Your task to perform on an android device: Open the stopwatch Image 0: 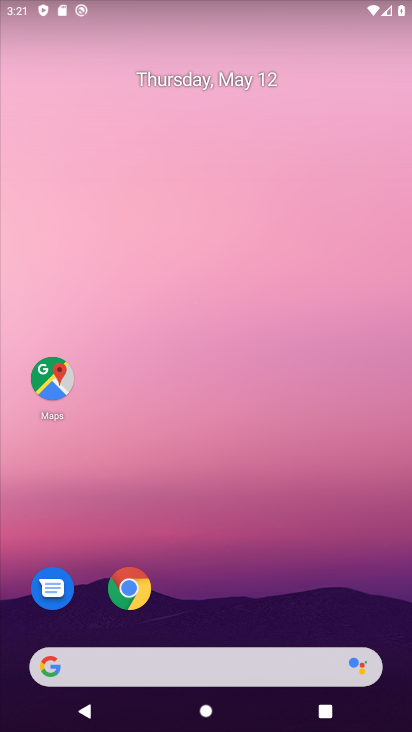
Step 0: drag from (327, 494) to (227, 89)
Your task to perform on an android device: Open the stopwatch Image 1: 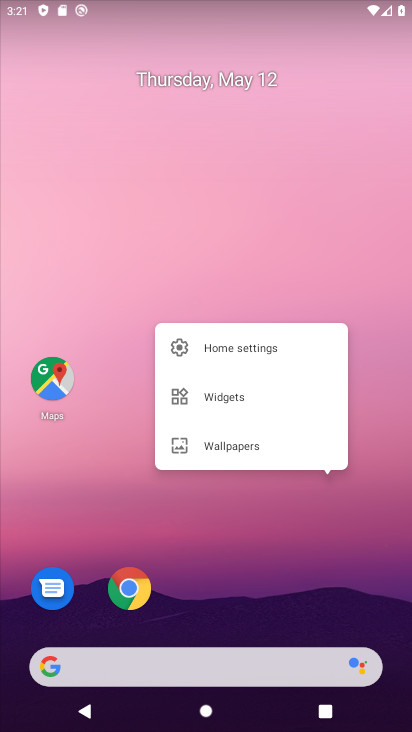
Step 1: click (233, 480)
Your task to perform on an android device: Open the stopwatch Image 2: 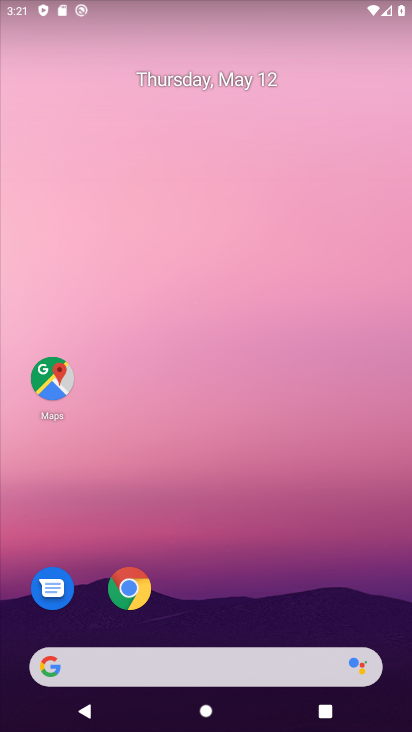
Step 2: click (254, 564)
Your task to perform on an android device: Open the stopwatch Image 3: 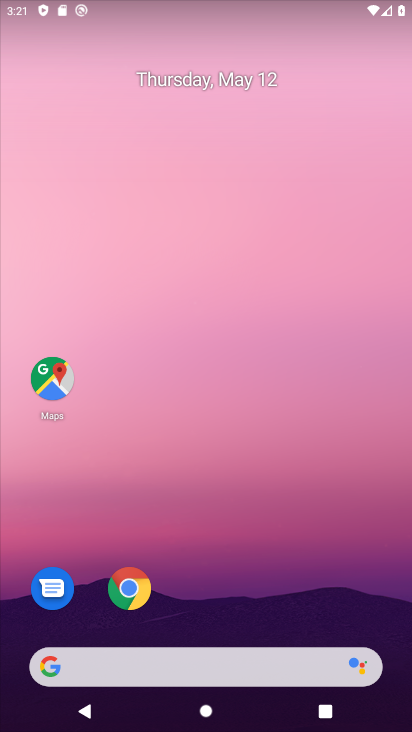
Step 3: drag from (254, 564) to (248, 4)
Your task to perform on an android device: Open the stopwatch Image 4: 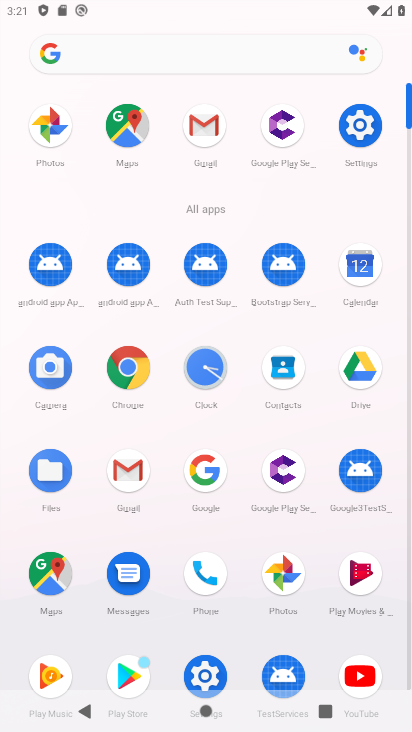
Step 4: click (356, 119)
Your task to perform on an android device: Open the stopwatch Image 5: 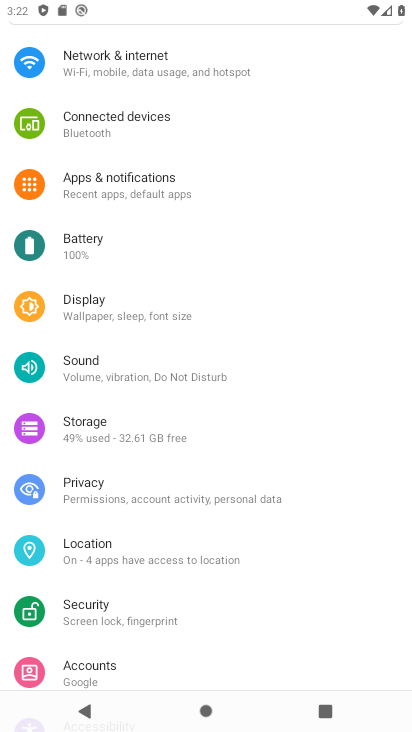
Step 5: press home button
Your task to perform on an android device: Open the stopwatch Image 6: 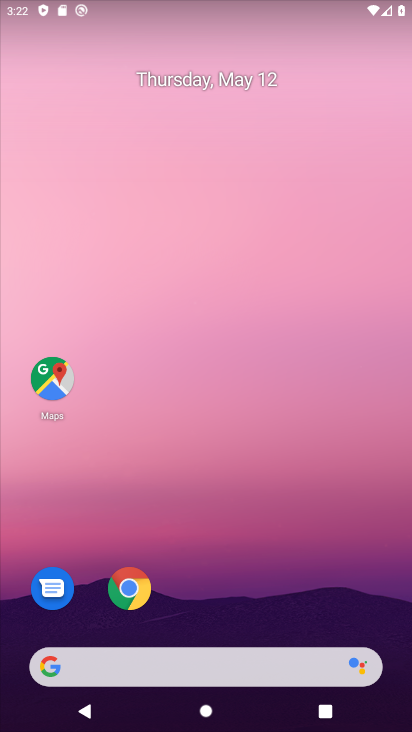
Step 6: drag from (250, 582) to (266, 94)
Your task to perform on an android device: Open the stopwatch Image 7: 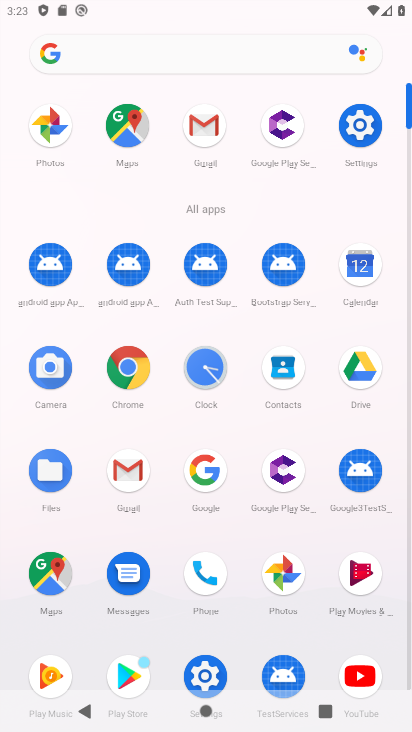
Step 7: click (225, 370)
Your task to perform on an android device: Open the stopwatch Image 8: 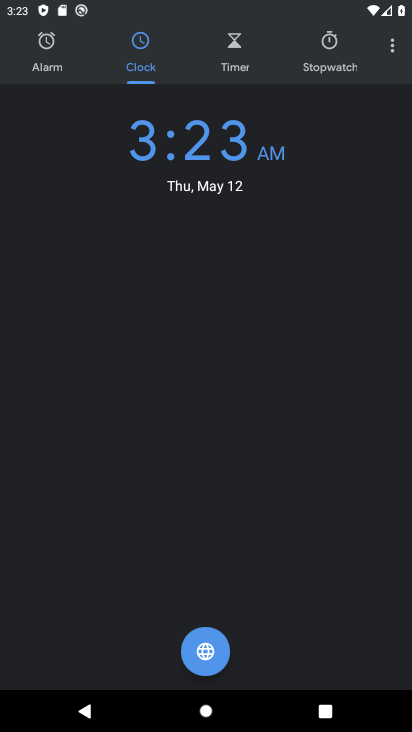
Step 8: click (313, 59)
Your task to perform on an android device: Open the stopwatch Image 9: 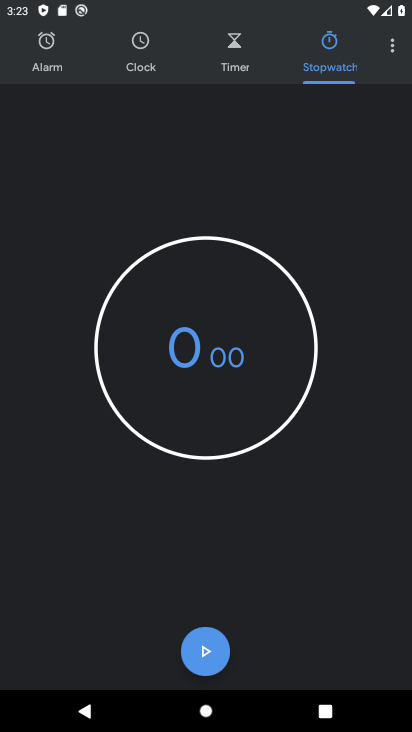
Step 9: task complete